Your task to perform on an android device: Open accessibility settings Image 0: 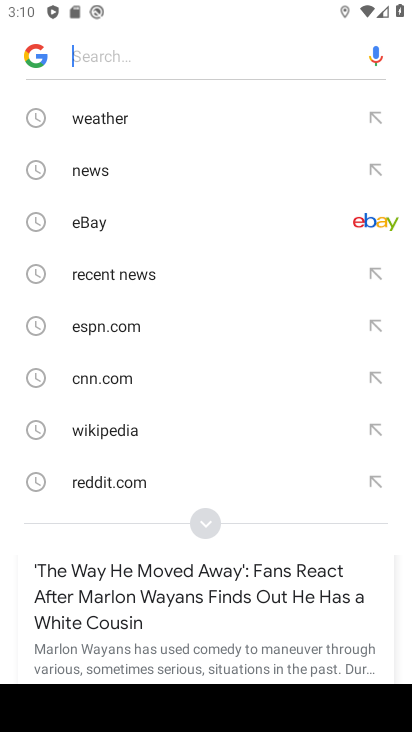
Step 0: press home button
Your task to perform on an android device: Open accessibility settings Image 1: 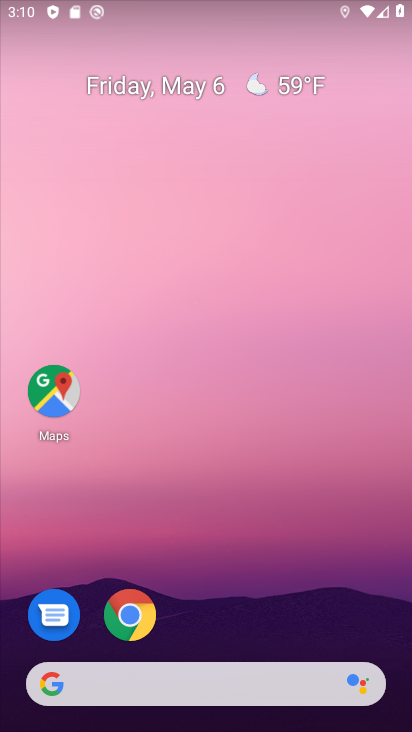
Step 1: drag from (286, 615) to (317, 5)
Your task to perform on an android device: Open accessibility settings Image 2: 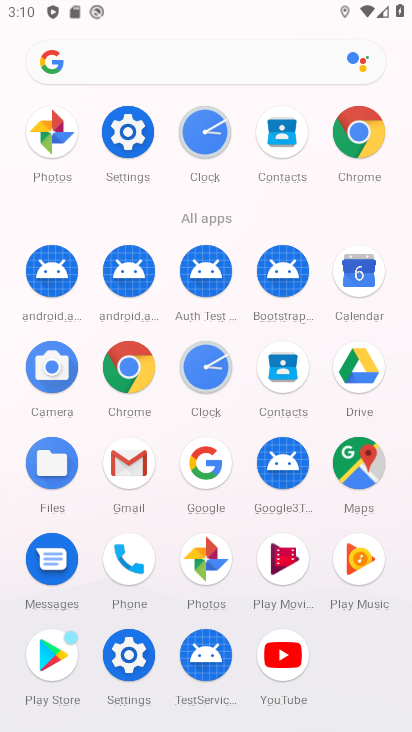
Step 2: click (131, 131)
Your task to perform on an android device: Open accessibility settings Image 3: 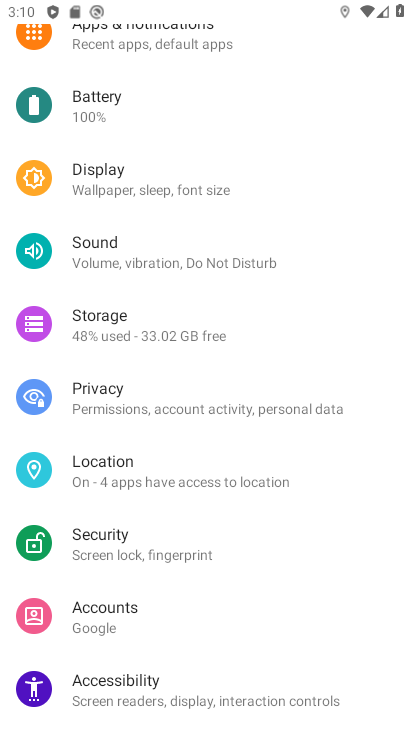
Step 3: click (124, 690)
Your task to perform on an android device: Open accessibility settings Image 4: 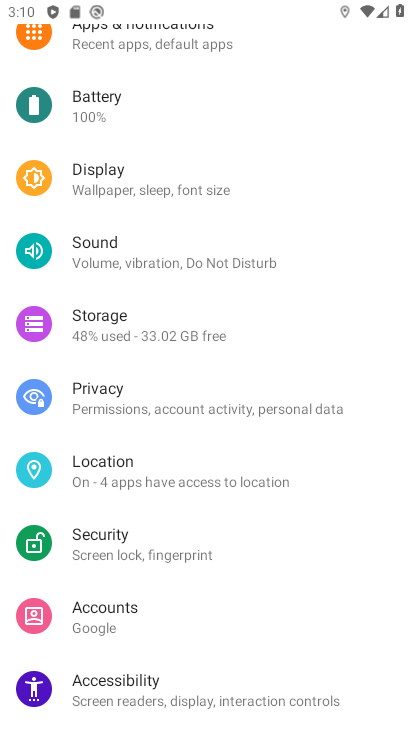
Step 4: drag from (267, 637) to (271, 473)
Your task to perform on an android device: Open accessibility settings Image 5: 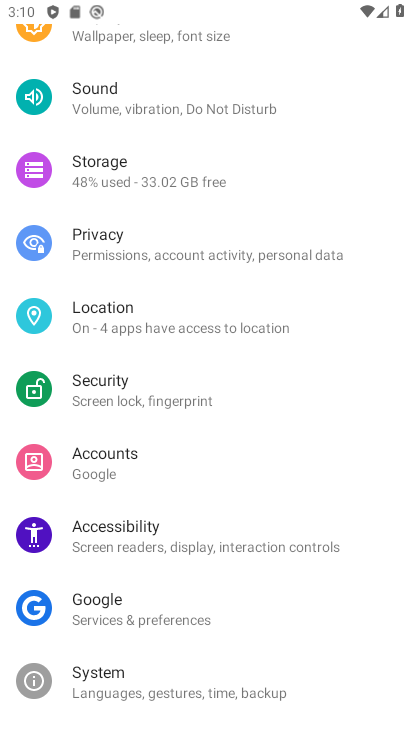
Step 5: click (89, 542)
Your task to perform on an android device: Open accessibility settings Image 6: 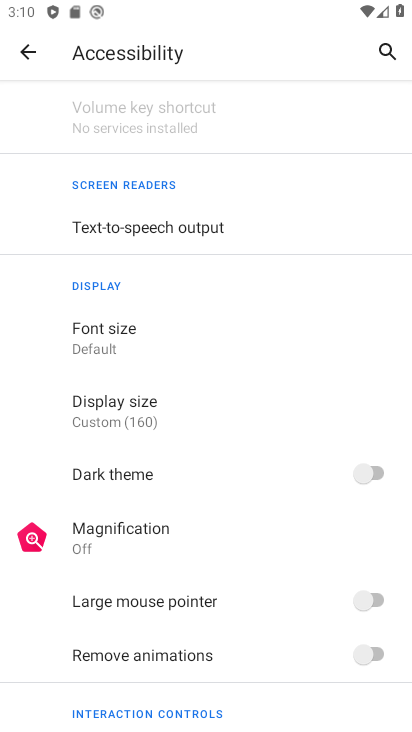
Step 6: task complete